Your task to perform on an android device: Open Chrome and go to settings Image 0: 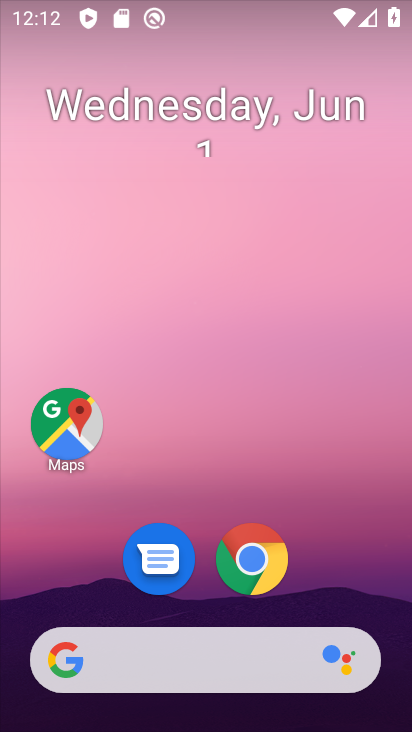
Step 0: drag from (329, 584) to (292, 216)
Your task to perform on an android device: Open Chrome and go to settings Image 1: 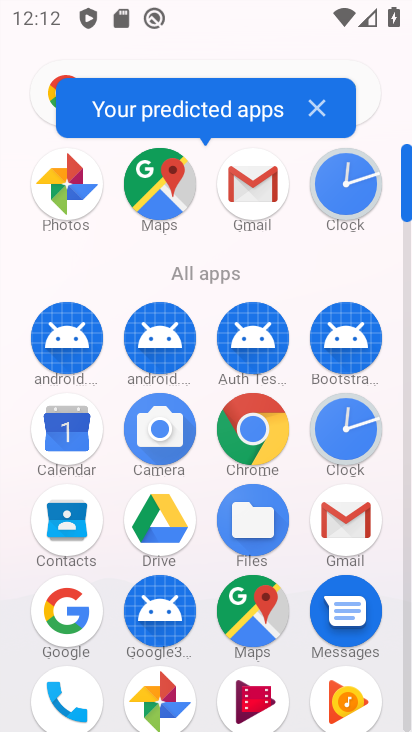
Step 1: click (267, 419)
Your task to perform on an android device: Open Chrome and go to settings Image 2: 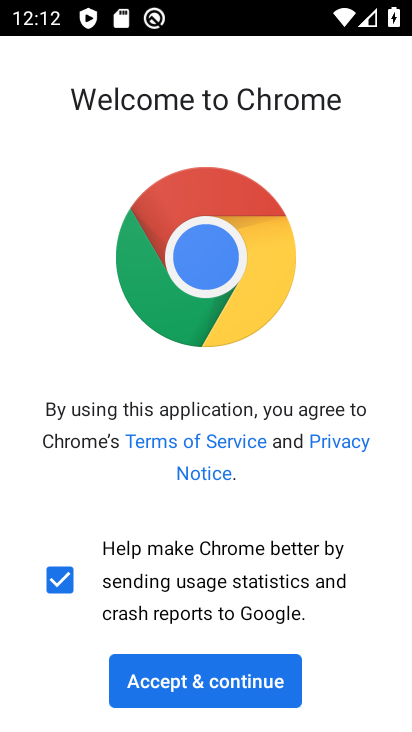
Step 2: click (207, 683)
Your task to perform on an android device: Open Chrome and go to settings Image 3: 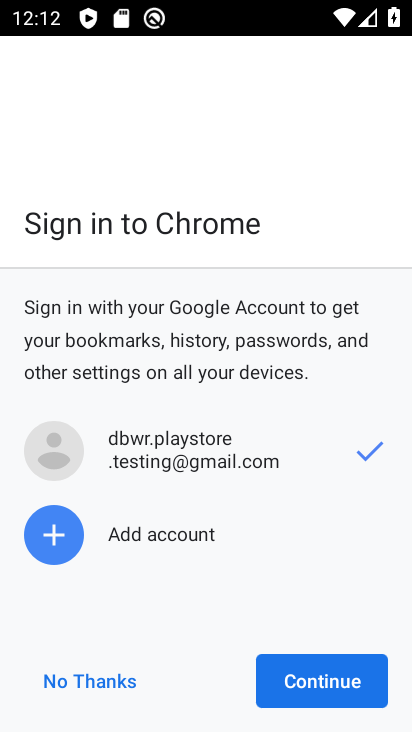
Step 3: click (284, 682)
Your task to perform on an android device: Open Chrome and go to settings Image 4: 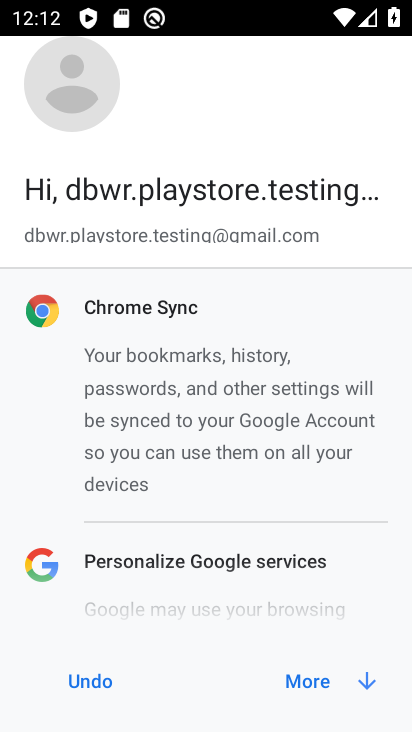
Step 4: click (296, 677)
Your task to perform on an android device: Open Chrome and go to settings Image 5: 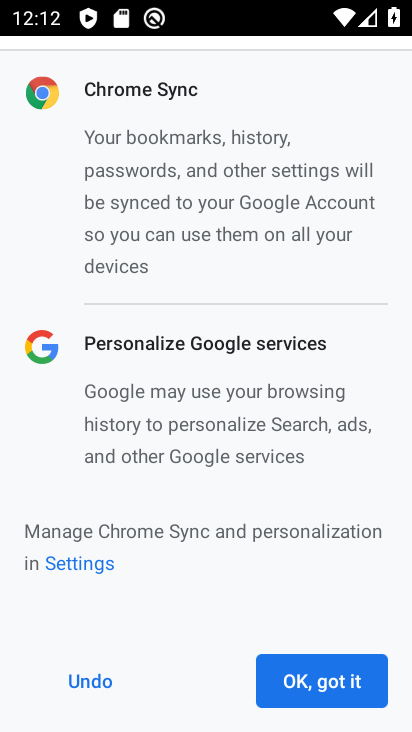
Step 5: click (301, 676)
Your task to perform on an android device: Open Chrome and go to settings Image 6: 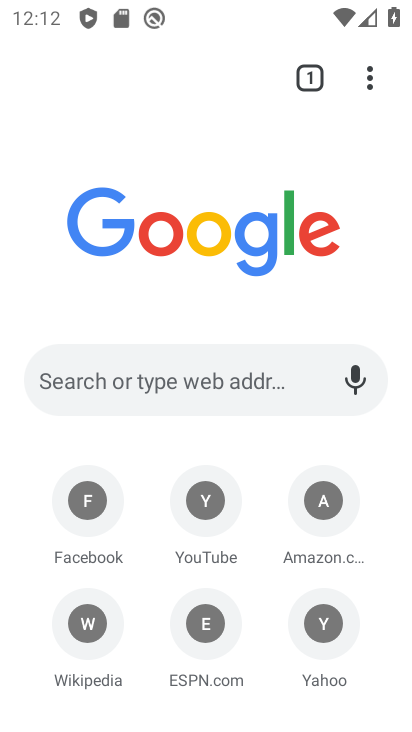
Step 6: click (362, 83)
Your task to perform on an android device: Open Chrome and go to settings Image 7: 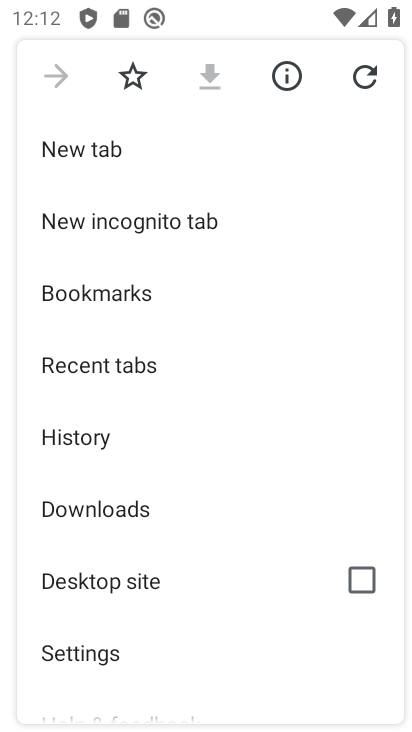
Step 7: drag from (140, 629) to (122, 340)
Your task to perform on an android device: Open Chrome and go to settings Image 8: 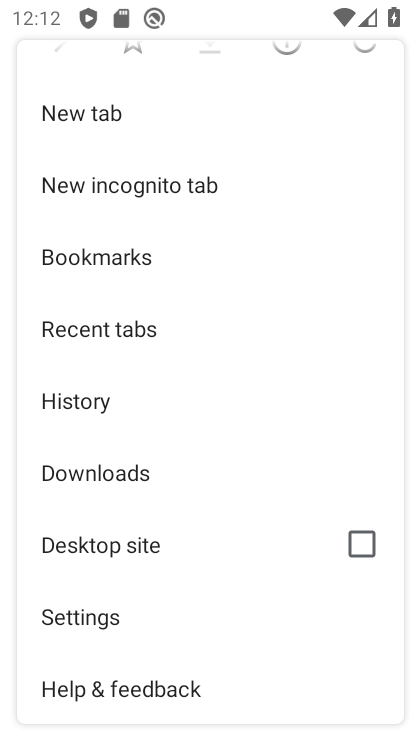
Step 8: click (118, 612)
Your task to perform on an android device: Open Chrome and go to settings Image 9: 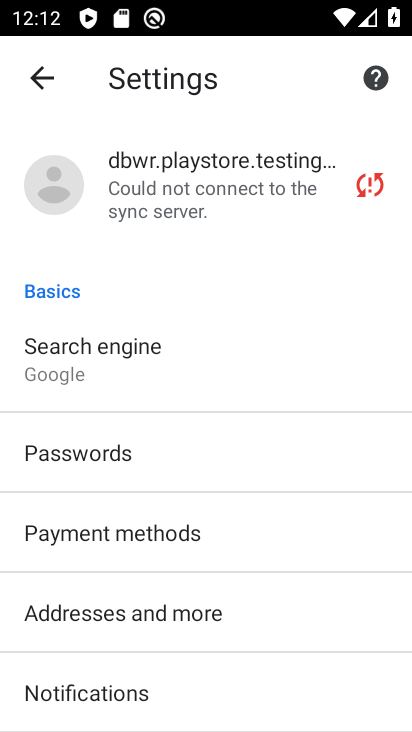
Step 9: task complete